Your task to perform on an android device: Open the phone app and click the voicemail tab. Image 0: 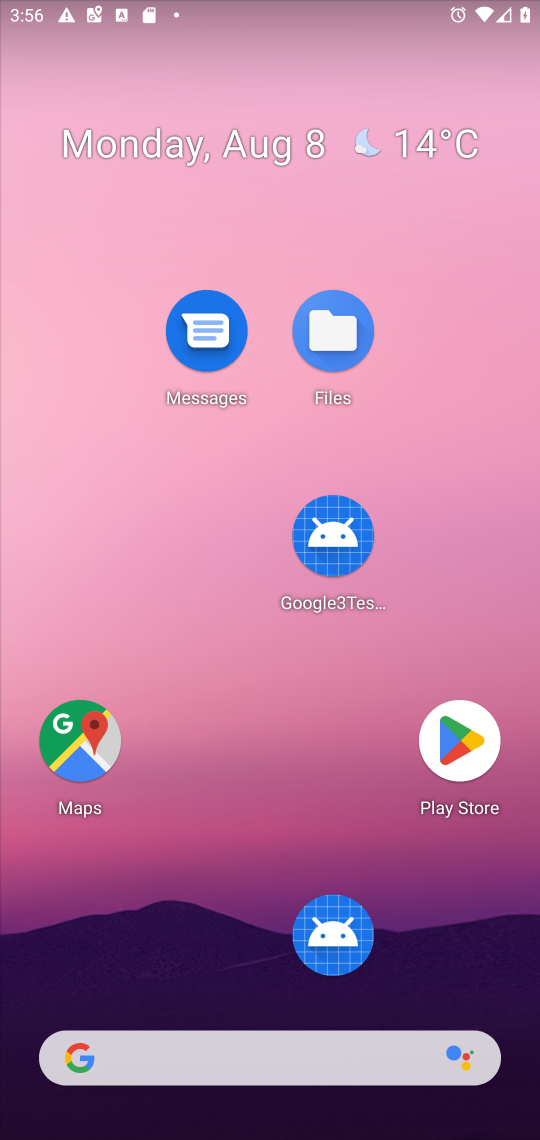
Step 0: drag from (286, 1054) to (212, 432)
Your task to perform on an android device: Open the phone app and click the voicemail tab. Image 1: 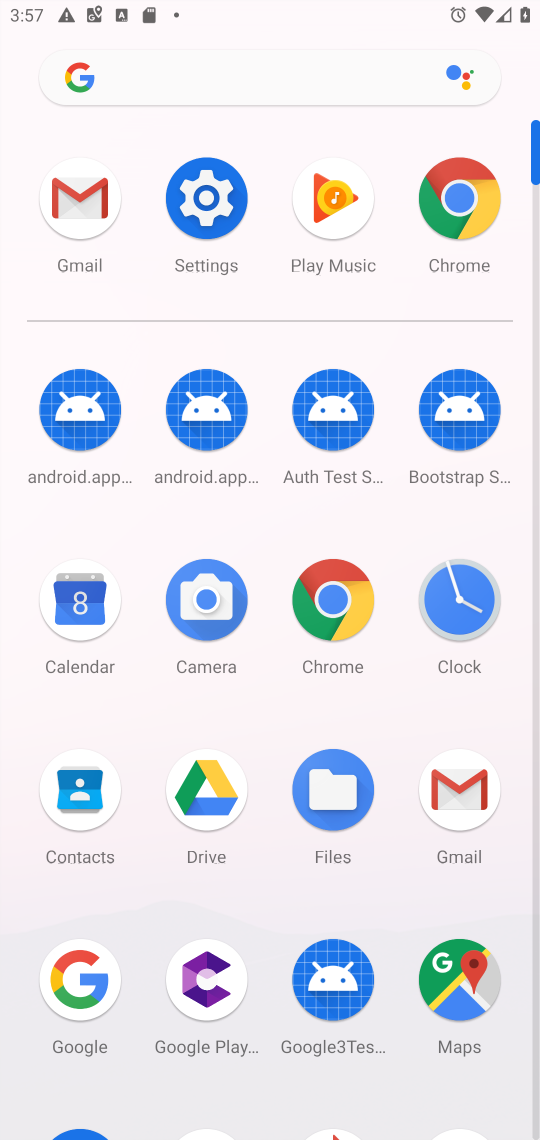
Step 1: drag from (283, 1059) to (256, 516)
Your task to perform on an android device: Open the phone app and click the voicemail tab. Image 2: 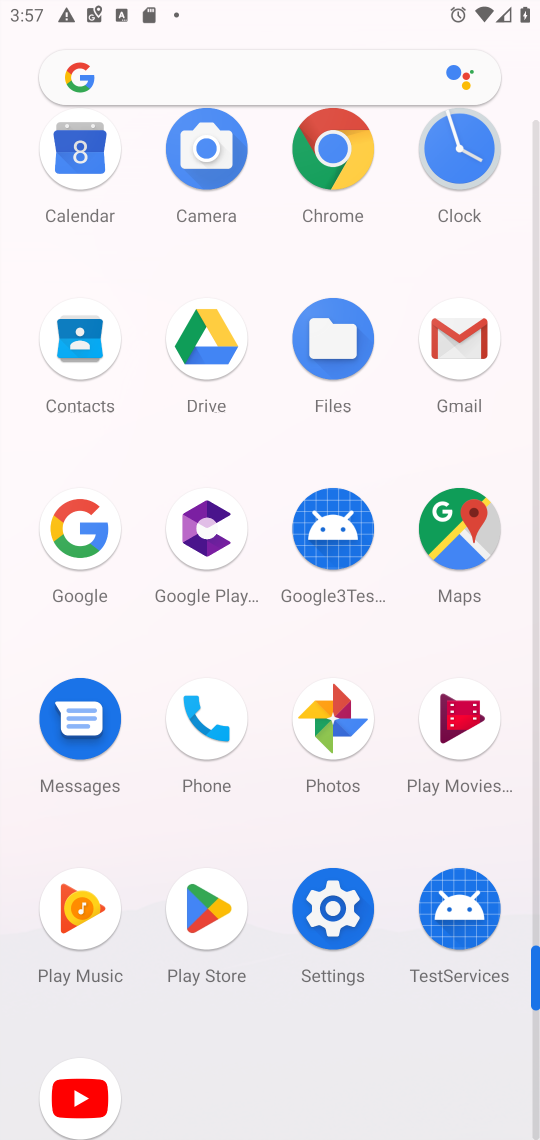
Step 2: click (211, 729)
Your task to perform on an android device: Open the phone app and click the voicemail tab. Image 3: 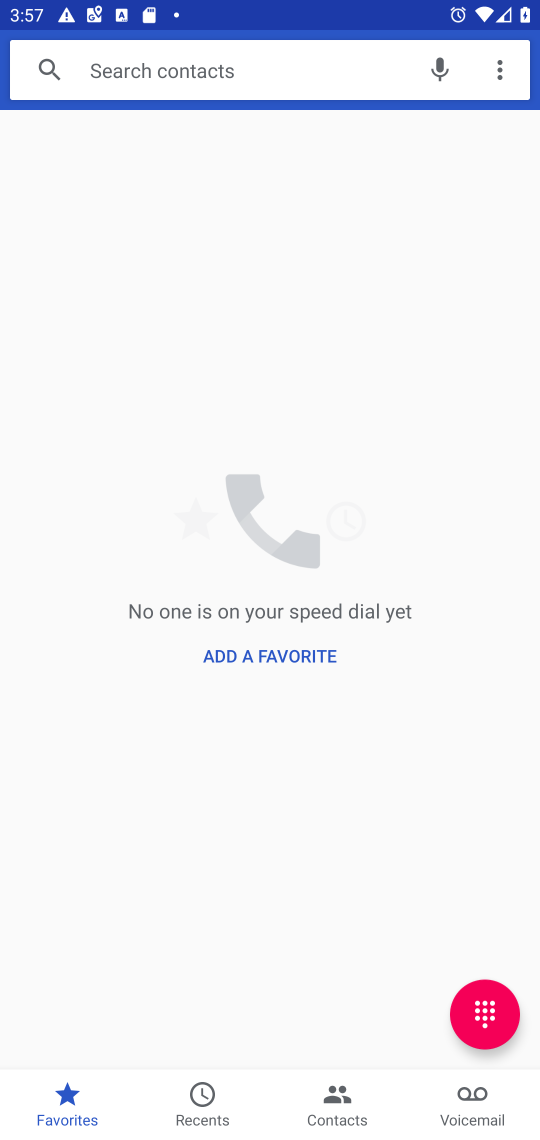
Step 3: click (453, 1105)
Your task to perform on an android device: Open the phone app and click the voicemail tab. Image 4: 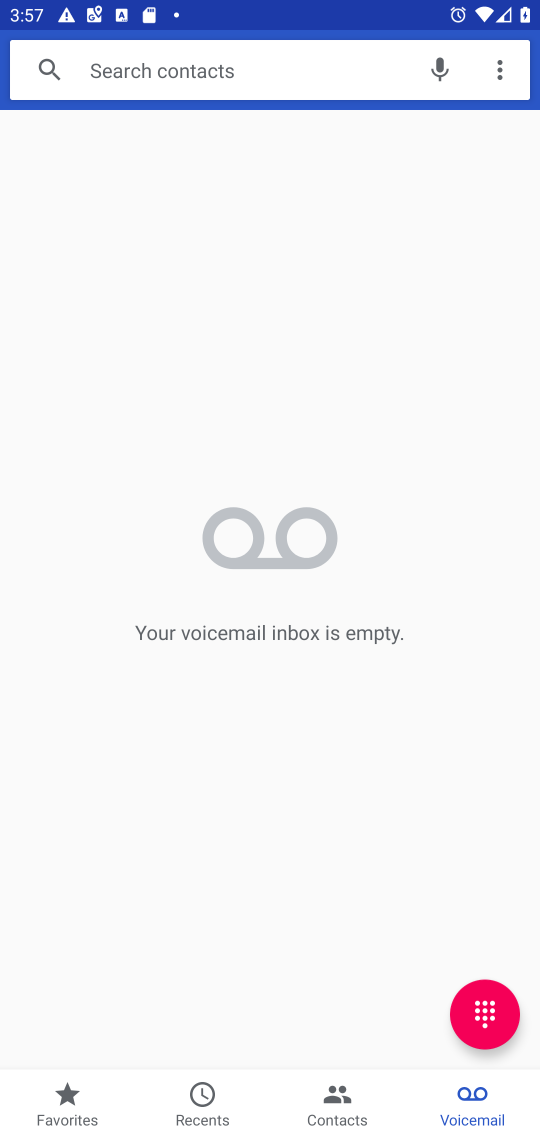
Step 4: task complete